Your task to perform on an android device: turn smart compose on in the gmail app Image 0: 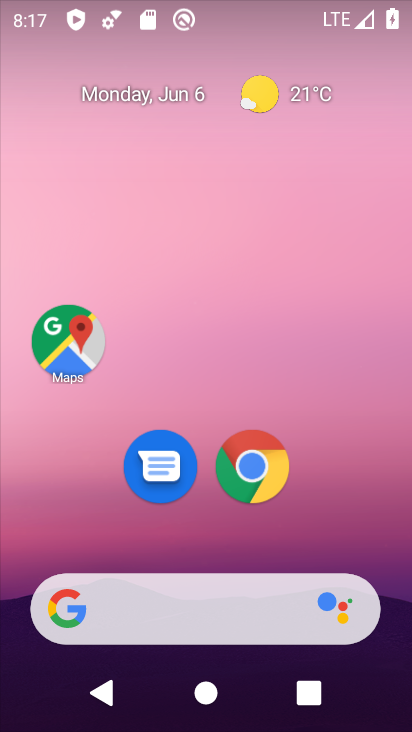
Step 0: drag from (202, 310) to (181, 105)
Your task to perform on an android device: turn smart compose on in the gmail app Image 1: 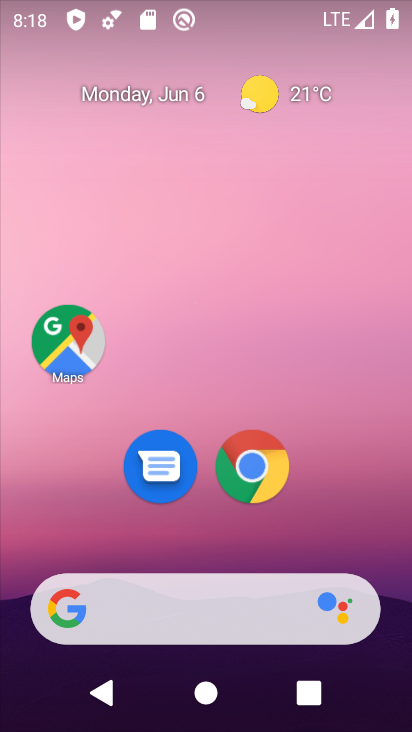
Step 1: drag from (209, 531) to (202, 112)
Your task to perform on an android device: turn smart compose on in the gmail app Image 2: 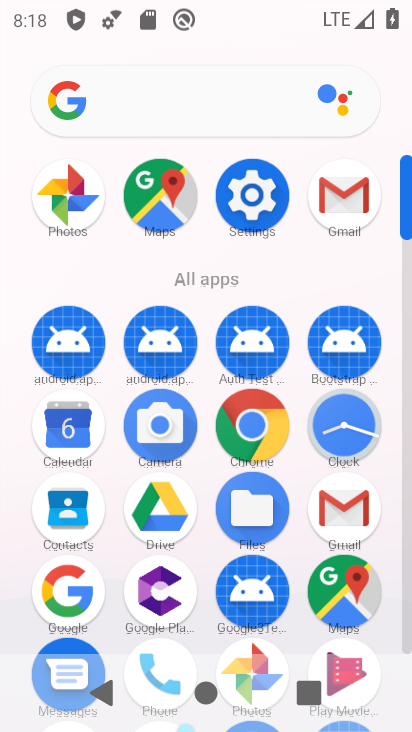
Step 2: click (349, 501)
Your task to perform on an android device: turn smart compose on in the gmail app Image 3: 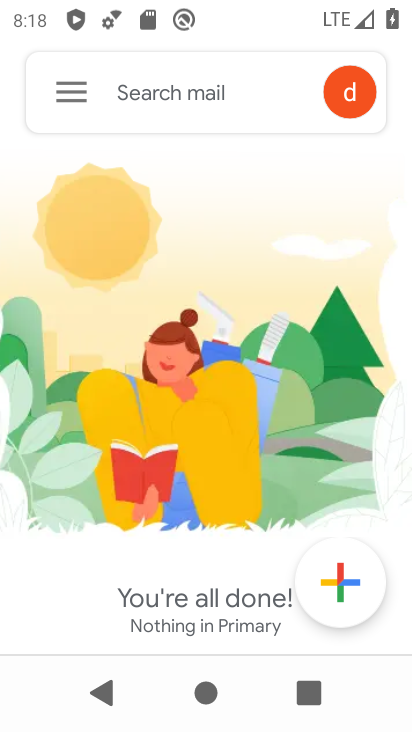
Step 3: click (75, 103)
Your task to perform on an android device: turn smart compose on in the gmail app Image 4: 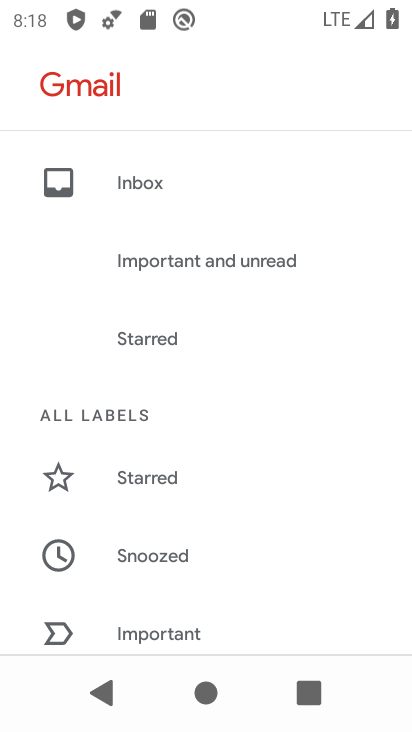
Step 4: drag from (255, 457) to (282, 1)
Your task to perform on an android device: turn smart compose on in the gmail app Image 5: 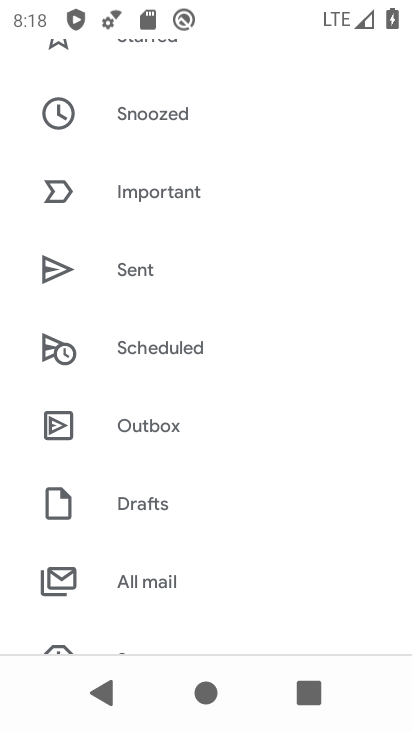
Step 5: drag from (209, 583) to (294, 86)
Your task to perform on an android device: turn smart compose on in the gmail app Image 6: 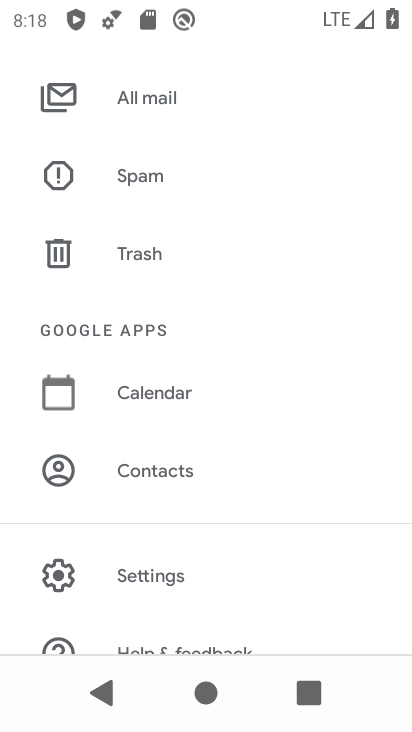
Step 6: click (158, 574)
Your task to perform on an android device: turn smart compose on in the gmail app Image 7: 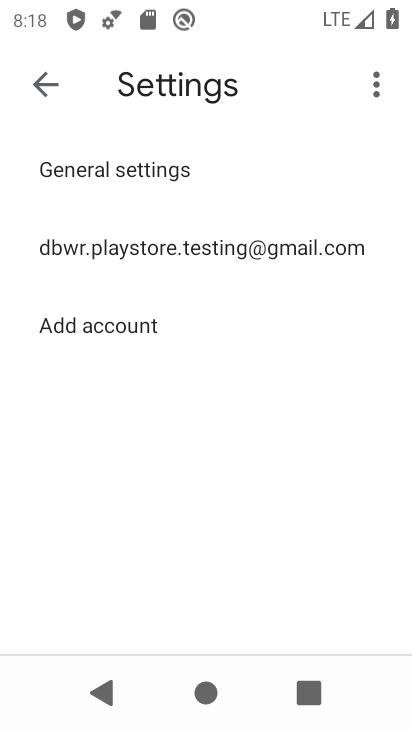
Step 7: drag from (160, 555) to (164, 113)
Your task to perform on an android device: turn smart compose on in the gmail app Image 8: 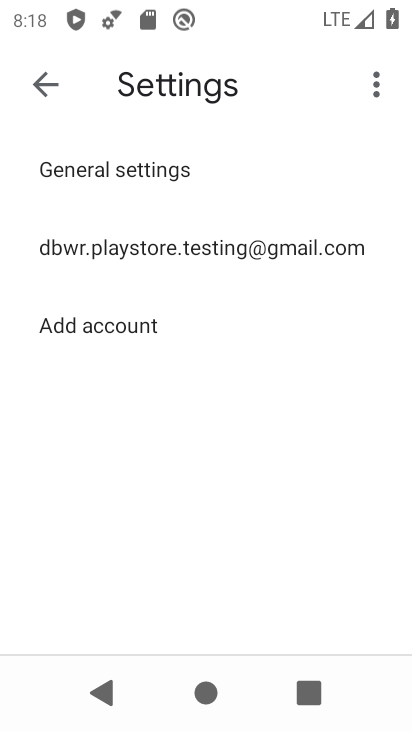
Step 8: click (194, 252)
Your task to perform on an android device: turn smart compose on in the gmail app Image 9: 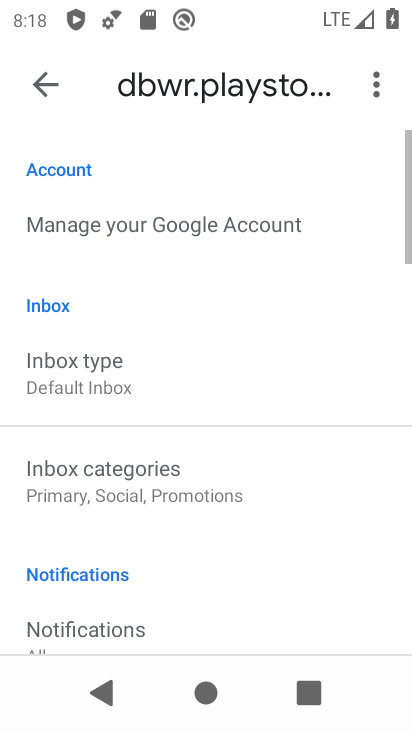
Step 9: task complete